Your task to perform on an android device: toggle javascript in the chrome app Image 0: 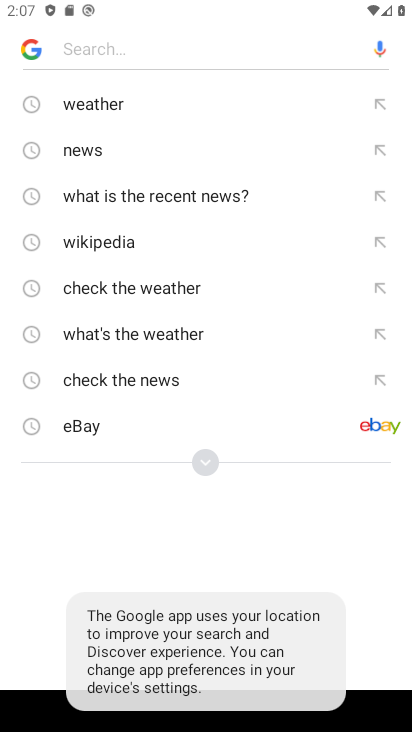
Step 0: press home button
Your task to perform on an android device: toggle javascript in the chrome app Image 1: 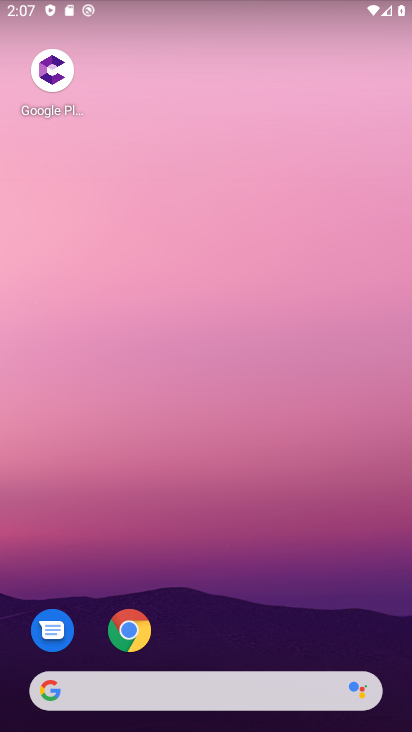
Step 1: click (128, 632)
Your task to perform on an android device: toggle javascript in the chrome app Image 2: 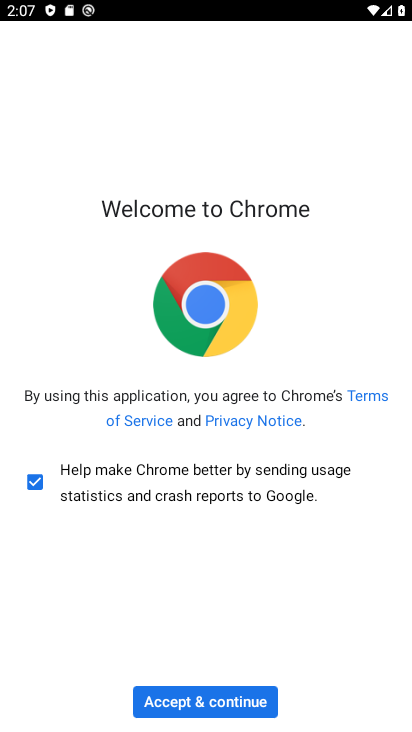
Step 2: click (197, 695)
Your task to perform on an android device: toggle javascript in the chrome app Image 3: 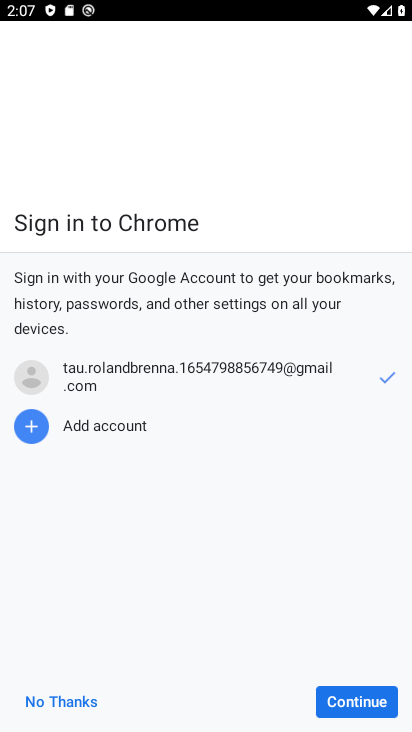
Step 3: click (357, 700)
Your task to perform on an android device: toggle javascript in the chrome app Image 4: 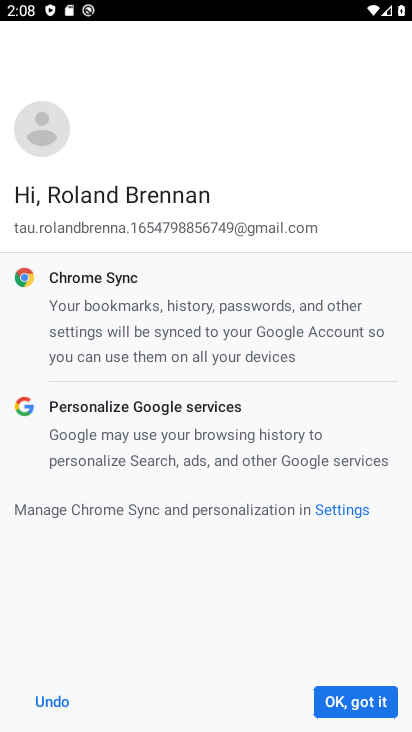
Step 4: click (364, 700)
Your task to perform on an android device: toggle javascript in the chrome app Image 5: 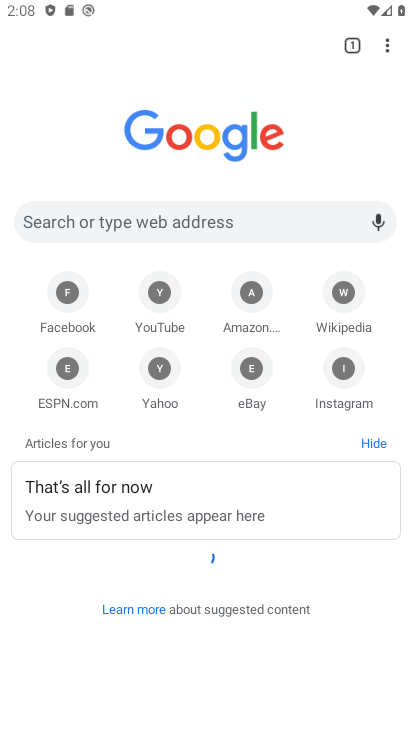
Step 5: click (387, 46)
Your task to perform on an android device: toggle javascript in the chrome app Image 6: 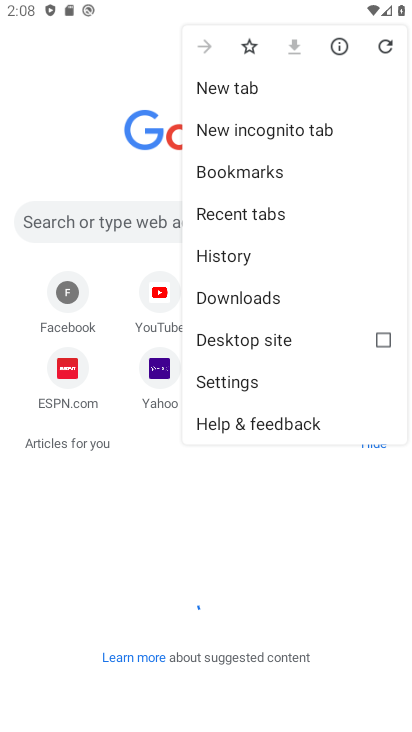
Step 6: click (235, 379)
Your task to perform on an android device: toggle javascript in the chrome app Image 7: 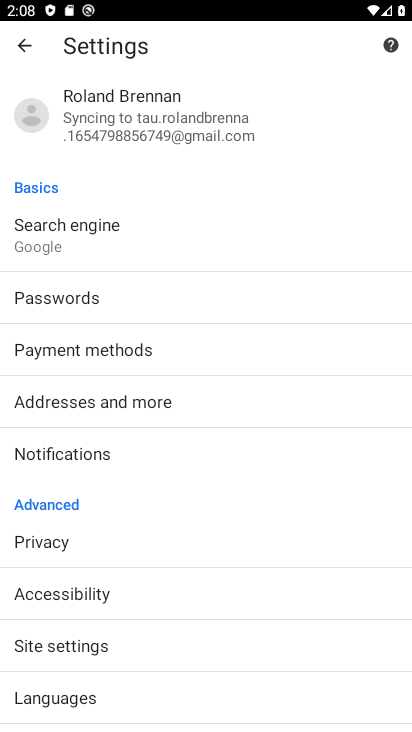
Step 7: click (99, 641)
Your task to perform on an android device: toggle javascript in the chrome app Image 8: 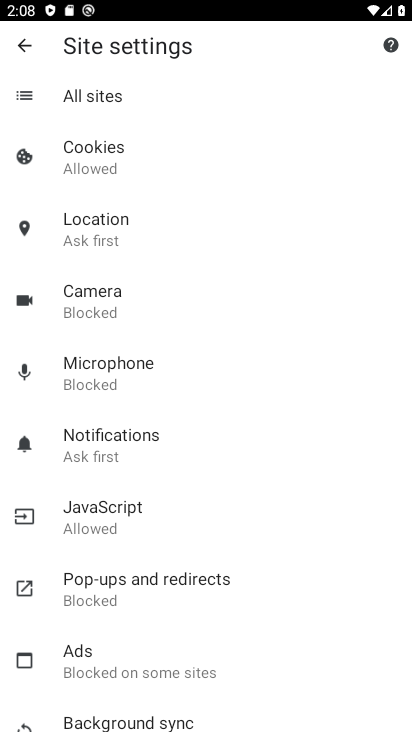
Step 8: click (87, 502)
Your task to perform on an android device: toggle javascript in the chrome app Image 9: 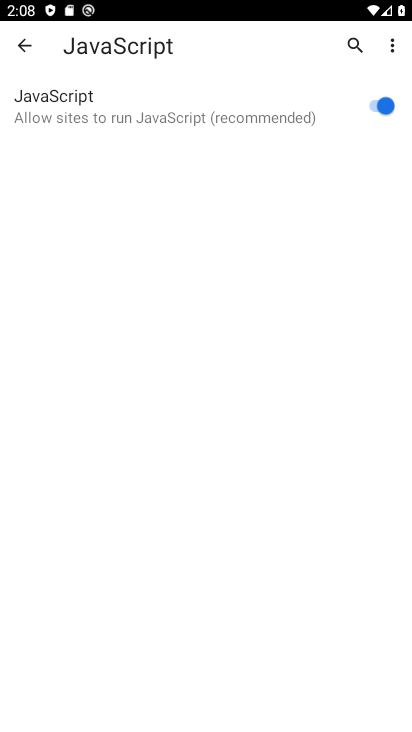
Step 9: click (370, 104)
Your task to perform on an android device: toggle javascript in the chrome app Image 10: 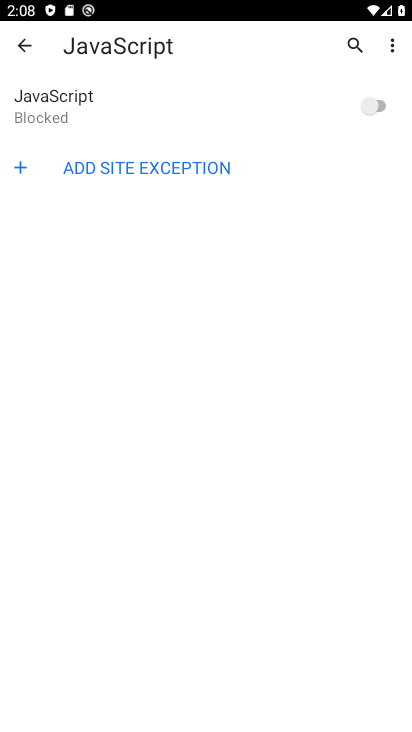
Step 10: task complete